Your task to perform on an android device: What's on my calendar today? Image 0: 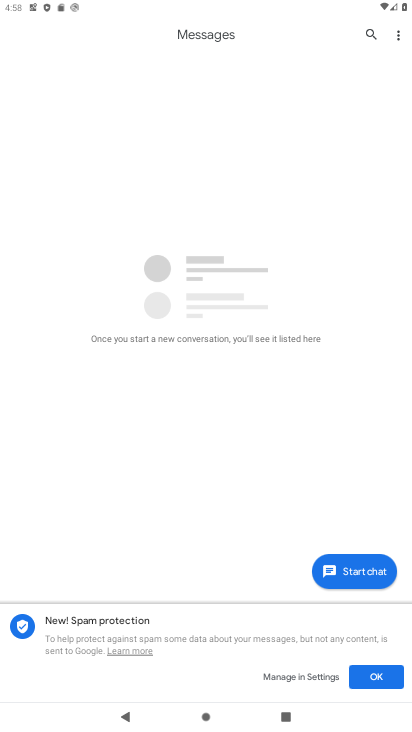
Step 0: press home button
Your task to perform on an android device: What's on my calendar today? Image 1: 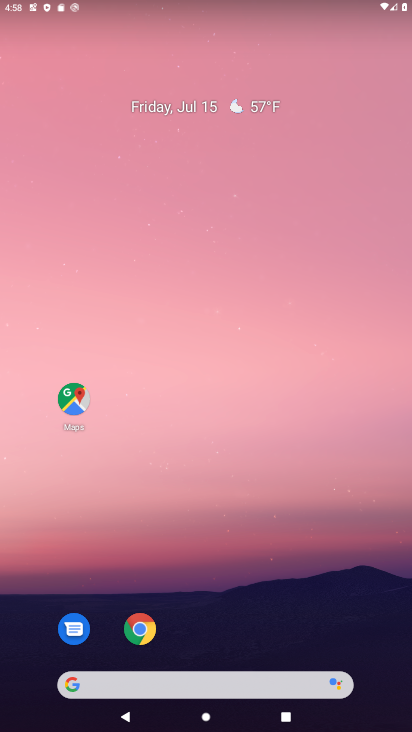
Step 1: drag from (285, 612) to (341, 27)
Your task to perform on an android device: What's on my calendar today? Image 2: 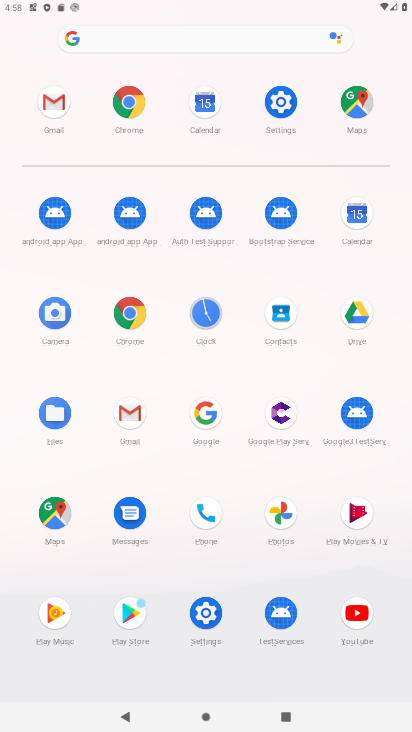
Step 2: click (359, 214)
Your task to perform on an android device: What's on my calendar today? Image 3: 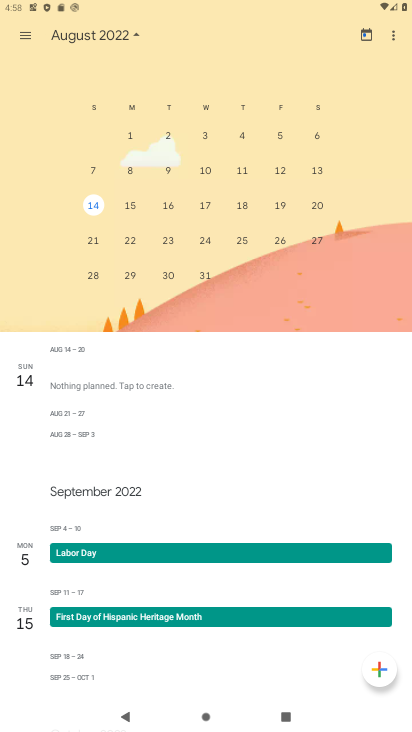
Step 3: drag from (126, 169) to (406, 189)
Your task to perform on an android device: What's on my calendar today? Image 4: 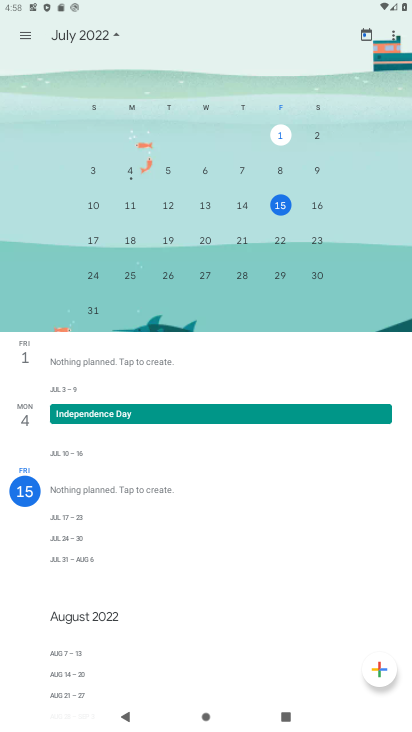
Step 4: click (278, 204)
Your task to perform on an android device: What's on my calendar today? Image 5: 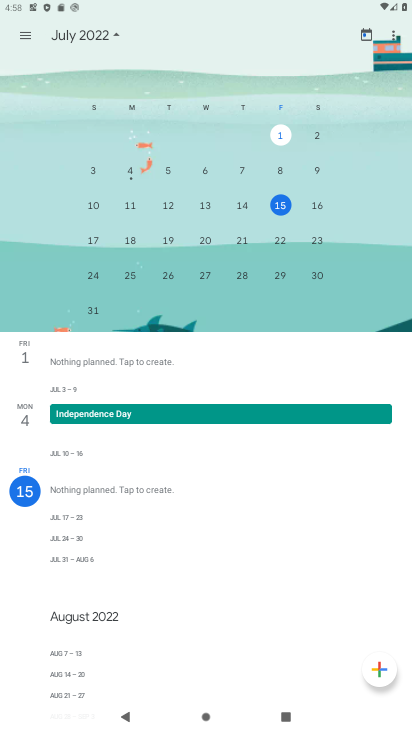
Step 5: click (278, 204)
Your task to perform on an android device: What's on my calendar today? Image 6: 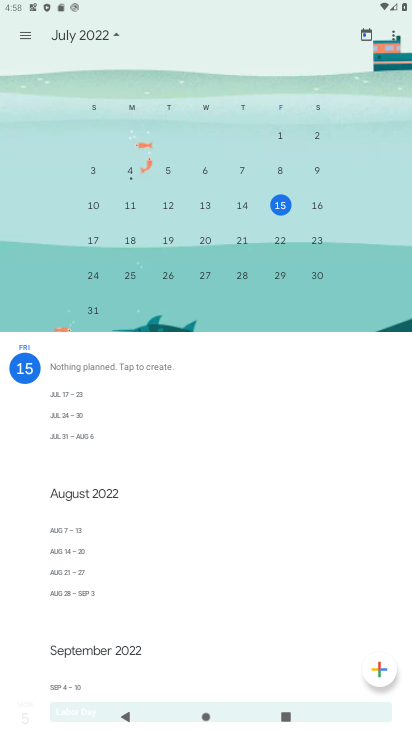
Step 6: click (15, 42)
Your task to perform on an android device: What's on my calendar today? Image 7: 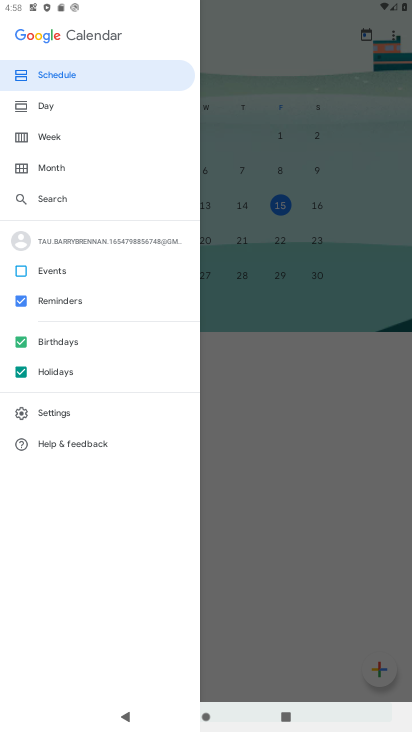
Step 7: click (51, 109)
Your task to perform on an android device: What's on my calendar today? Image 8: 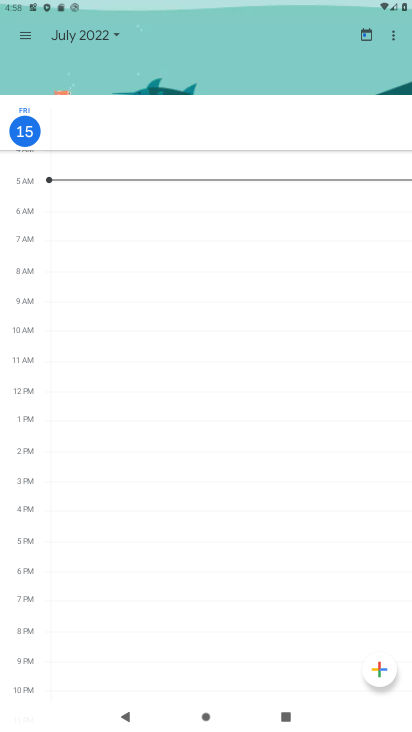
Step 8: task complete